Your task to perform on an android device: Go to Google maps Image 0: 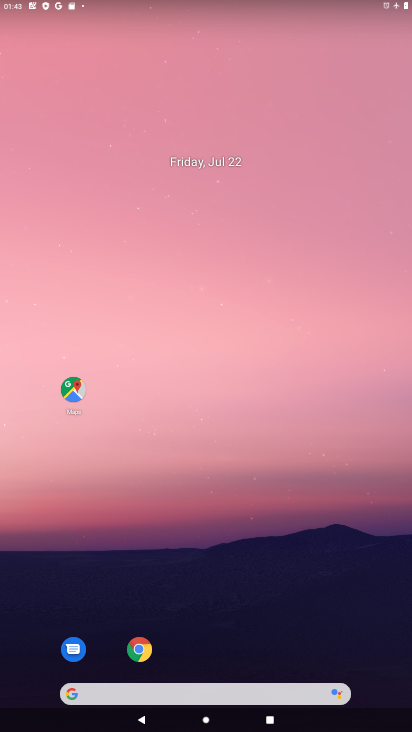
Step 0: drag from (274, 593) to (254, 119)
Your task to perform on an android device: Go to Google maps Image 1: 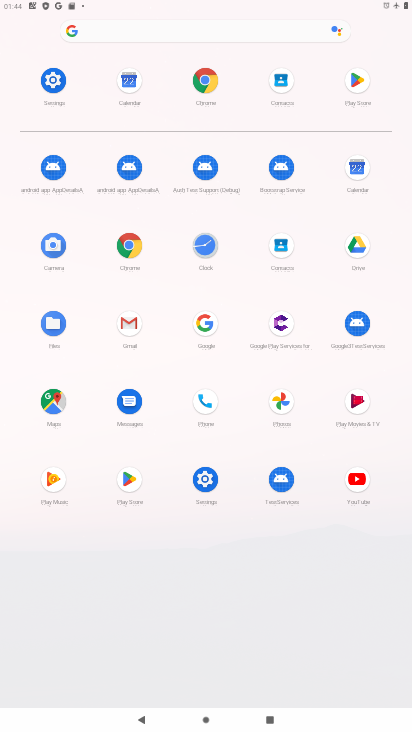
Step 1: click (52, 401)
Your task to perform on an android device: Go to Google maps Image 2: 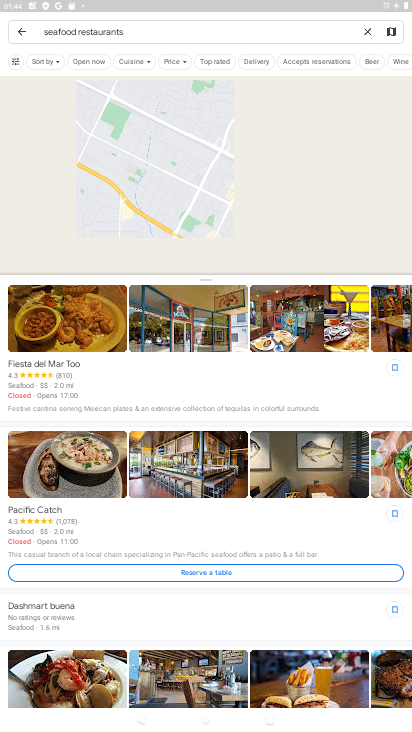
Step 2: task complete